Your task to perform on an android device: Go to Wikipedia Image 0: 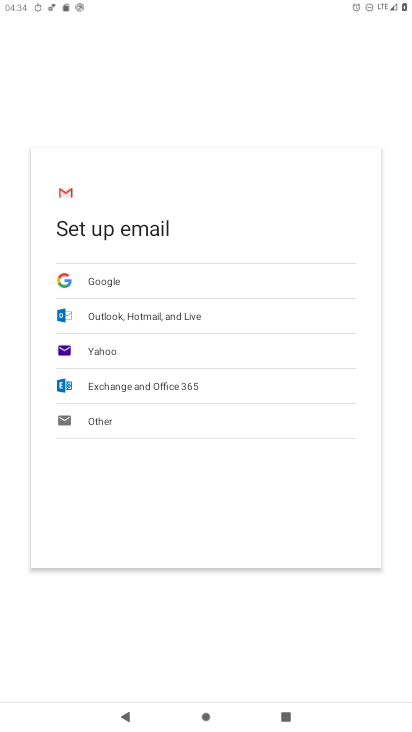
Step 0: press home button
Your task to perform on an android device: Go to Wikipedia Image 1: 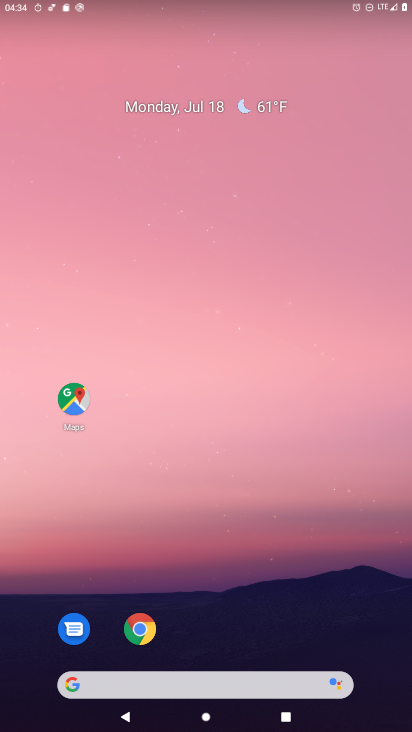
Step 1: click (140, 630)
Your task to perform on an android device: Go to Wikipedia Image 2: 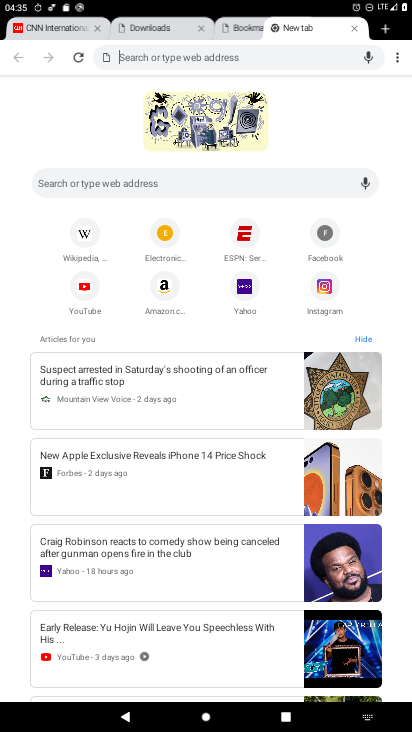
Step 2: click (82, 235)
Your task to perform on an android device: Go to Wikipedia Image 3: 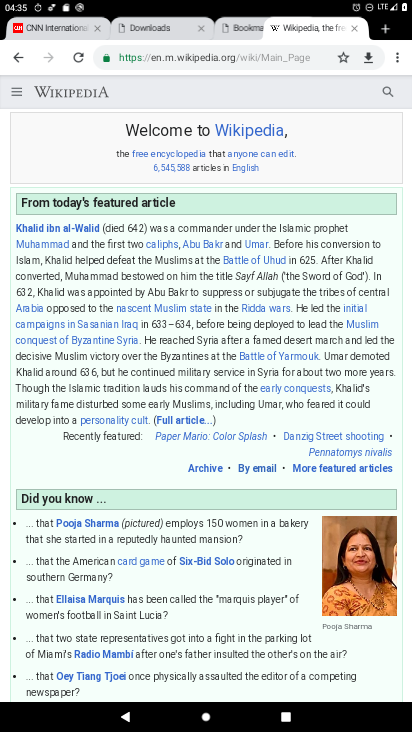
Step 3: task complete